Your task to perform on an android device: open app "WhatsApp Messenger" Image 0: 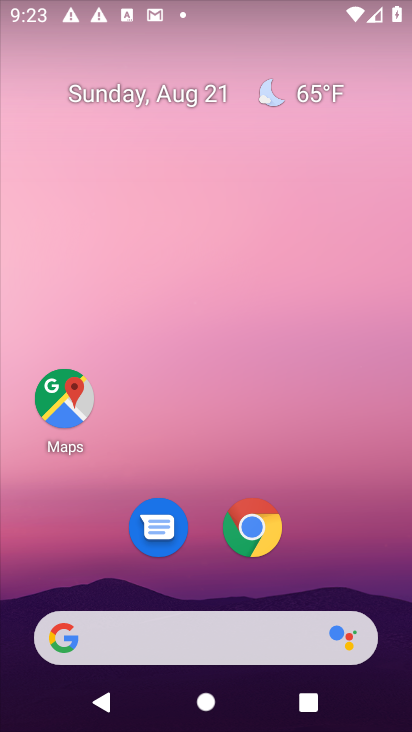
Step 0: drag from (210, 583) to (232, 6)
Your task to perform on an android device: open app "WhatsApp Messenger" Image 1: 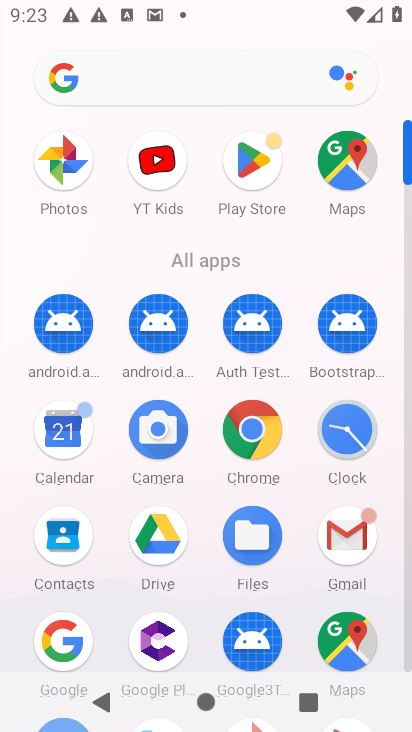
Step 1: click (244, 183)
Your task to perform on an android device: open app "WhatsApp Messenger" Image 2: 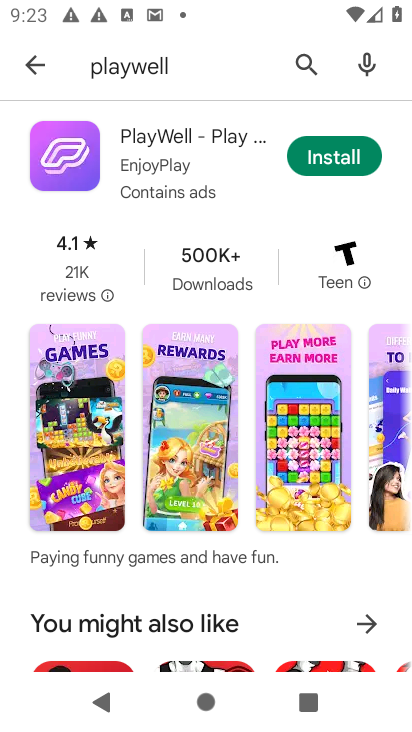
Step 2: click (177, 68)
Your task to perform on an android device: open app "WhatsApp Messenger" Image 3: 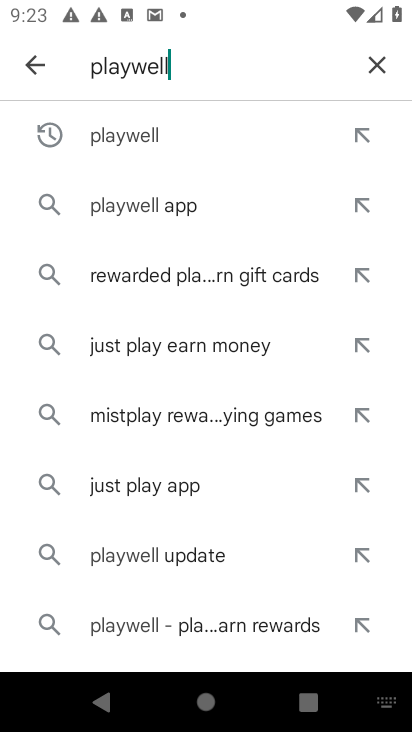
Step 3: click (378, 69)
Your task to perform on an android device: open app "WhatsApp Messenger" Image 4: 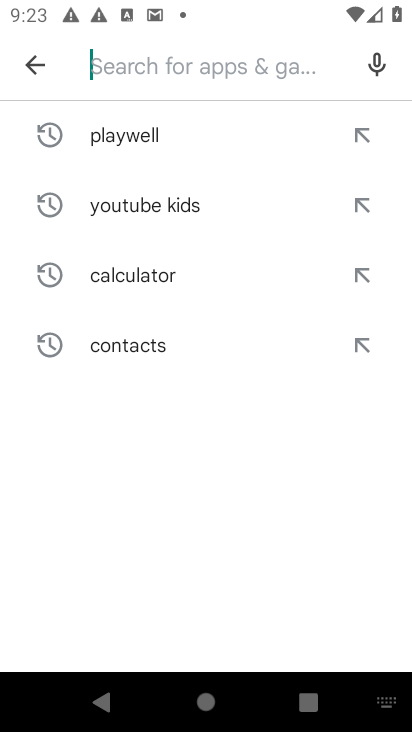
Step 4: type "Whatsapp Messenger"
Your task to perform on an android device: open app "WhatsApp Messenger" Image 5: 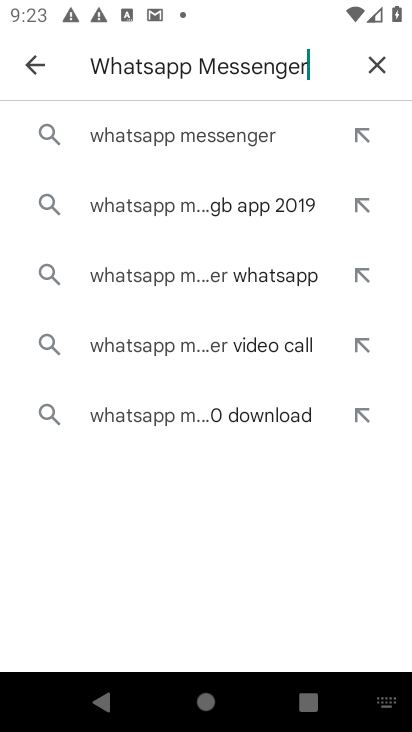
Step 5: click (203, 148)
Your task to perform on an android device: open app "WhatsApp Messenger" Image 6: 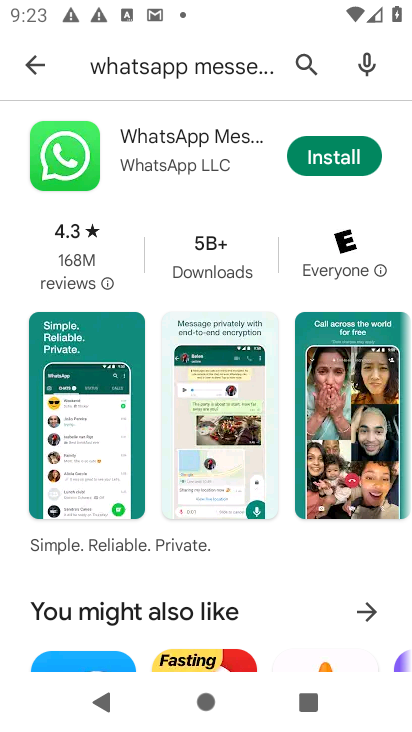
Step 6: task complete